Your task to perform on an android device: Open privacy settings Image 0: 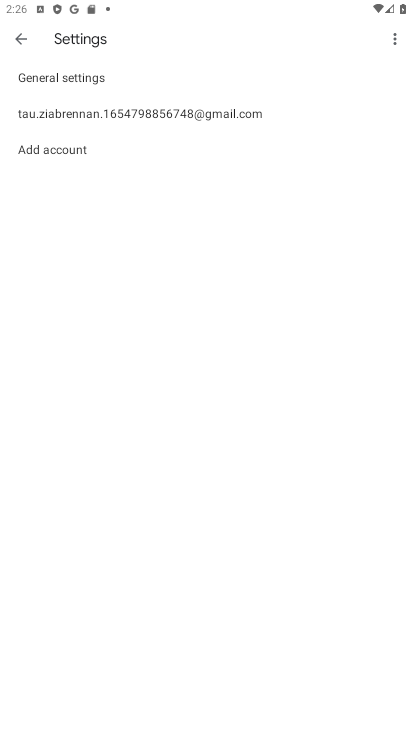
Step 0: press home button
Your task to perform on an android device: Open privacy settings Image 1: 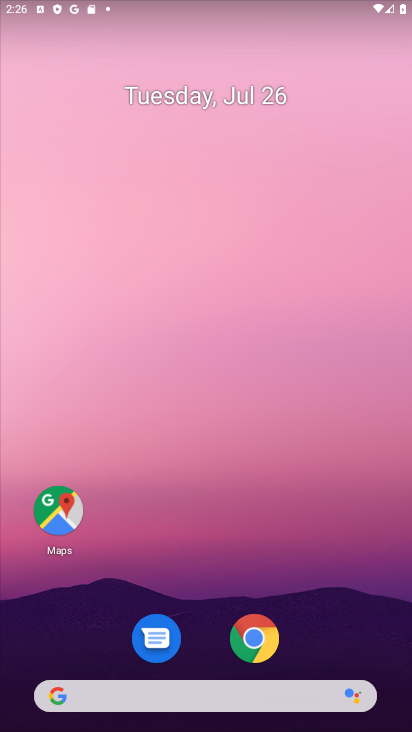
Step 1: drag from (183, 725) to (266, 143)
Your task to perform on an android device: Open privacy settings Image 2: 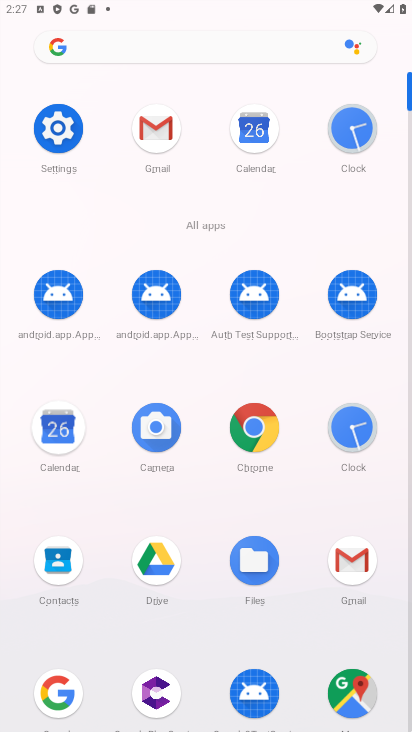
Step 2: click (57, 132)
Your task to perform on an android device: Open privacy settings Image 3: 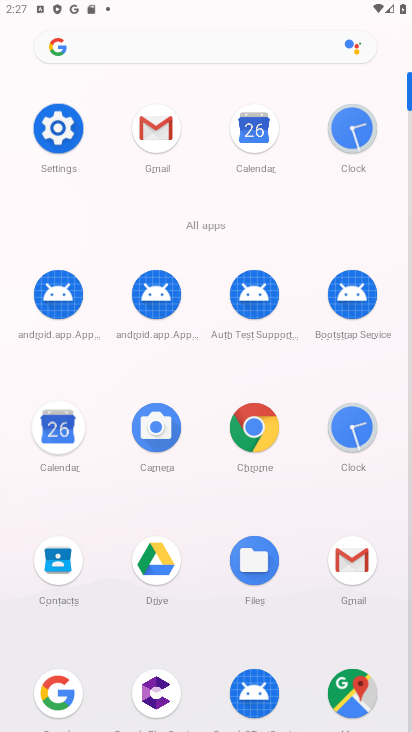
Step 3: click (57, 132)
Your task to perform on an android device: Open privacy settings Image 4: 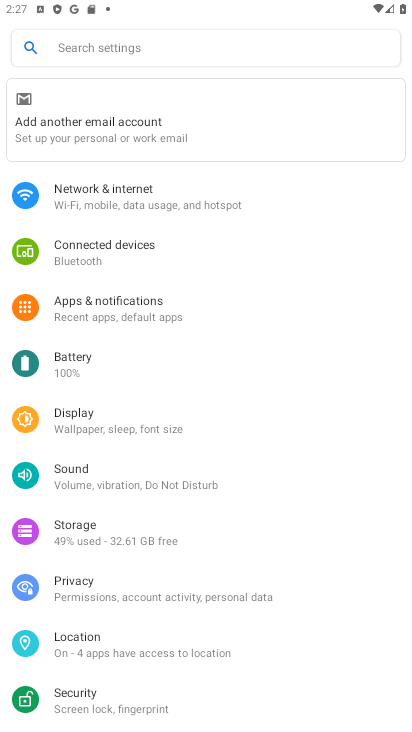
Step 4: click (113, 591)
Your task to perform on an android device: Open privacy settings Image 5: 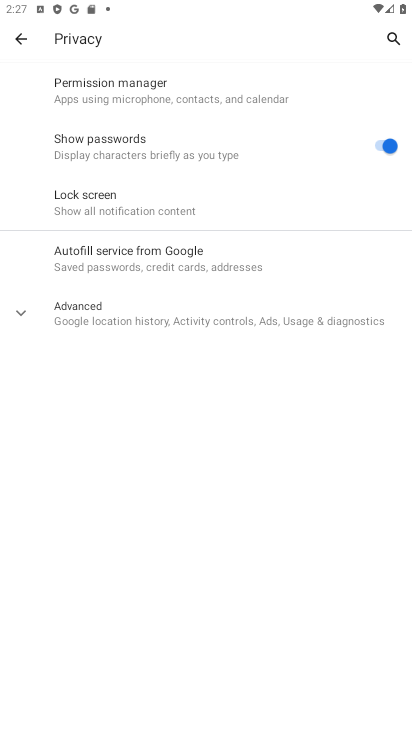
Step 5: task complete